Your task to perform on an android device: Open Youtube and go to the subscriptions tab Image 0: 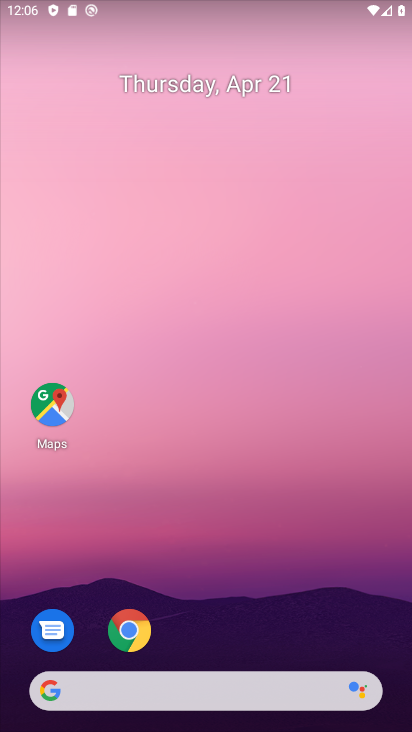
Step 0: drag from (336, 476) to (390, 170)
Your task to perform on an android device: Open Youtube and go to the subscriptions tab Image 1: 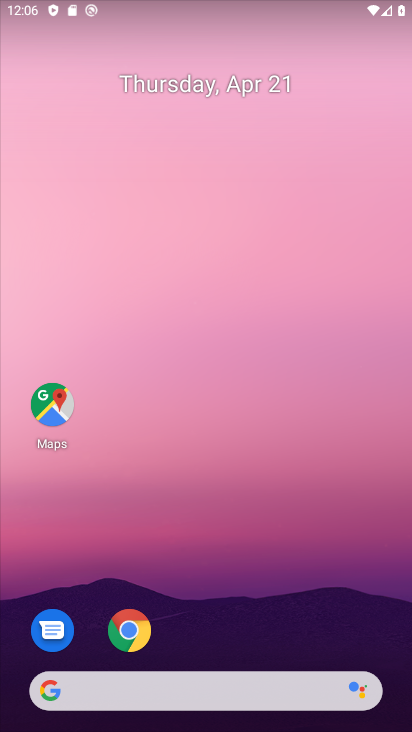
Step 1: drag from (312, 486) to (325, 170)
Your task to perform on an android device: Open Youtube and go to the subscriptions tab Image 2: 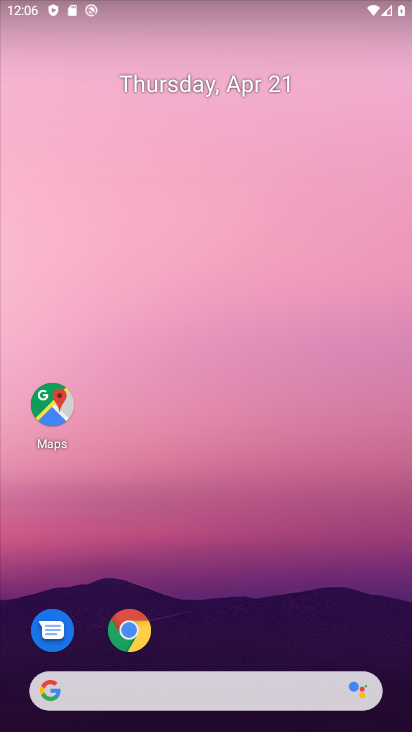
Step 2: drag from (254, 576) to (324, 110)
Your task to perform on an android device: Open Youtube and go to the subscriptions tab Image 3: 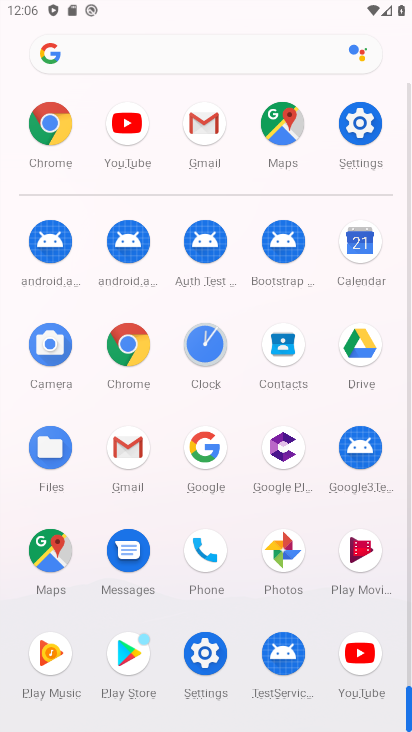
Step 3: click (360, 651)
Your task to perform on an android device: Open Youtube and go to the subscriptions tab Image 4: 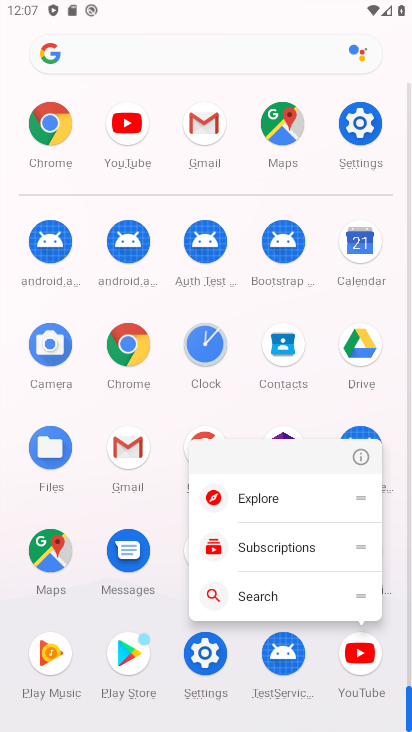
Step 4: click (356, 636)
Your task to perform on an android device: Open Youtube and go to the subscriptions tab Image 5: 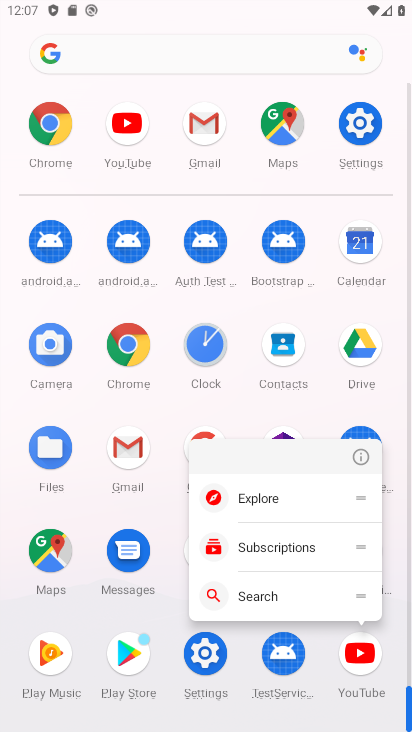
Step 5: click (372, 661)
Your task to perform on an android device: Open Youtube and go to the subscriptions tab Image 6: 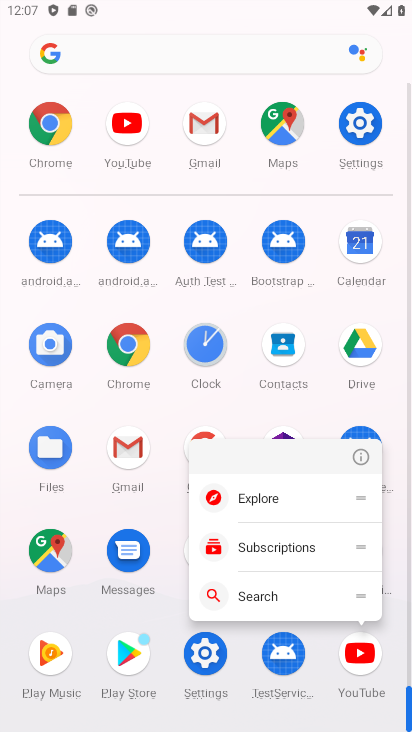
Step 6: click (372, 661)
Your task to perform on an android device: Open Youtube and go to the subscriptions tab Image 7: 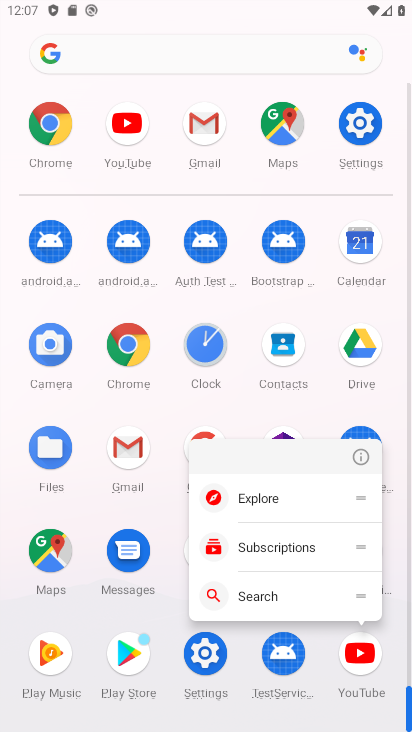
Step 7: click (372, 661)
Your task to perform on an android device: Open Youtube and go to the subscriptions tab Image 8: 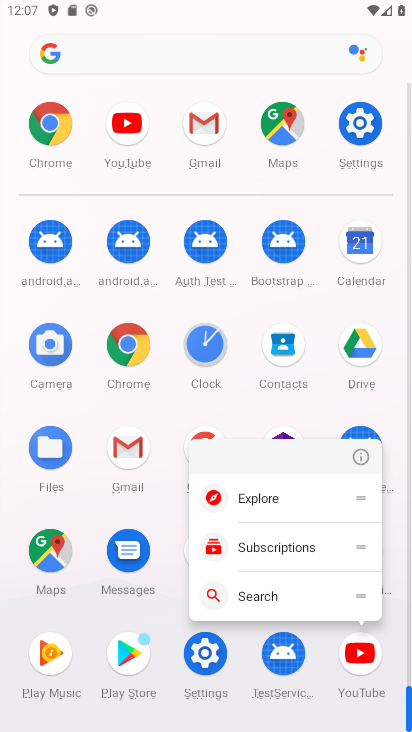
Step 8: click (372, 661)
Your task to perform on an android device: Open Youtube and go to the subscriptions tab Image 9: 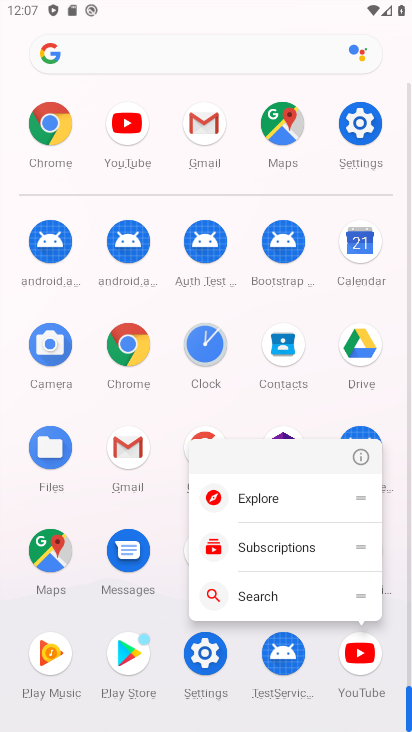
Step 9: click (372, 660)
Your task to perform on an android device: Open Youtube and go to the subscriptions tab Image 10: 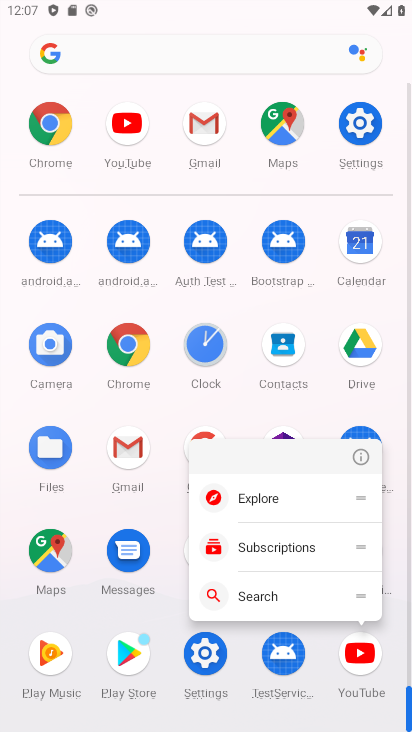
Step 10: click (366, 656)
Your task to perform on an android device: Open Youtube and go to the subscriptions tab Image 11: 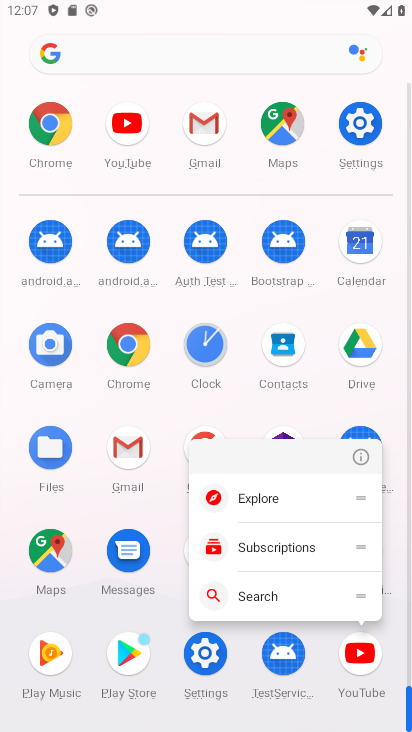
Step 11: click (366, 656)
Your task to perform on an android device: Open Youtube and go to the subscriptions tab Image 12: 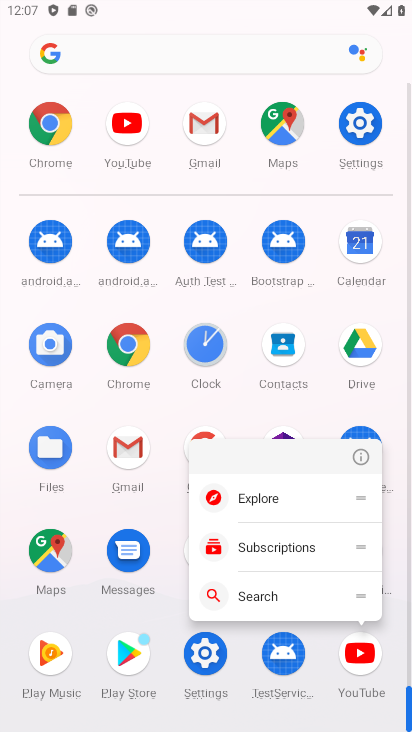
Step 12: click (366, 655)
Your task to perform on an android device: Open Youtube and go to the subscriptions tab Image 13: 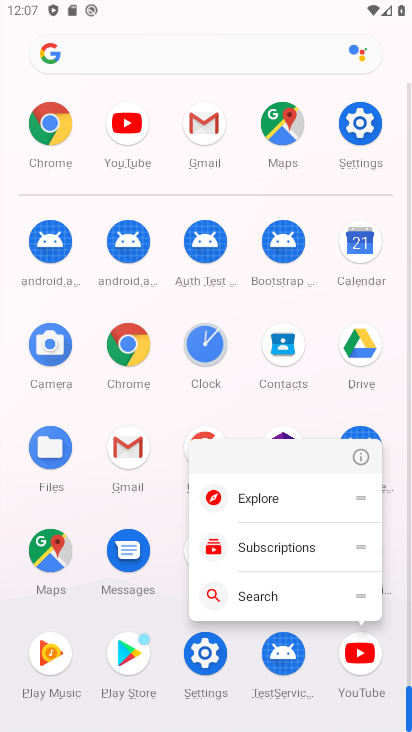
Step 13: click (367, 655)
Your task to perform on an android device: Open Youtube and go to the subscriptions tab Image 14: 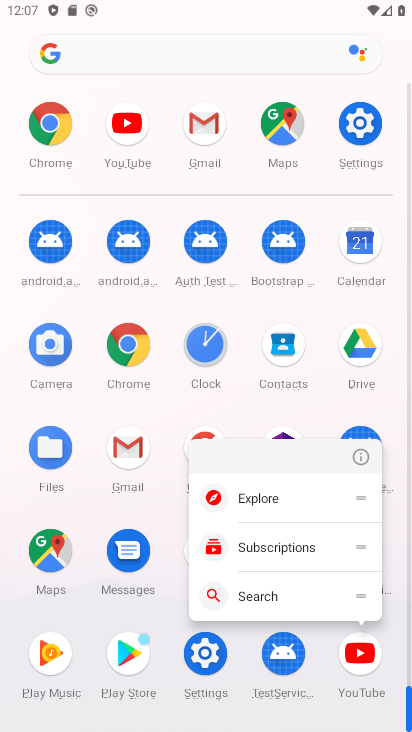
Step 14: click (367, 656)
Your task to perform on an android device: Open Youtube and go to the subscriptions tab Image 15: 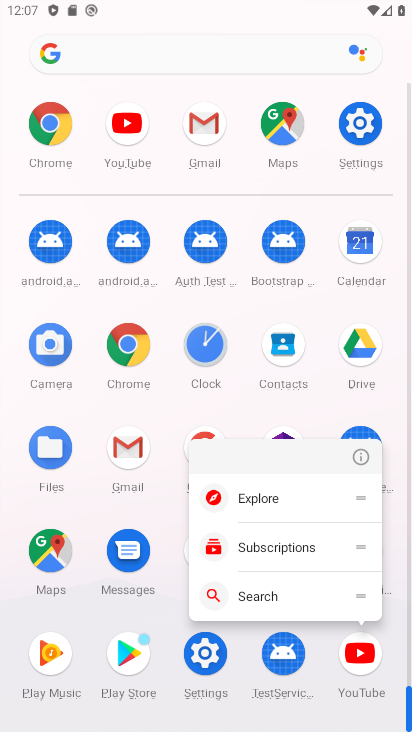
Step 15: click (367, 656)
Your task to perform on an android device: Open Youtube and go to the subscriptions tab Image 16: 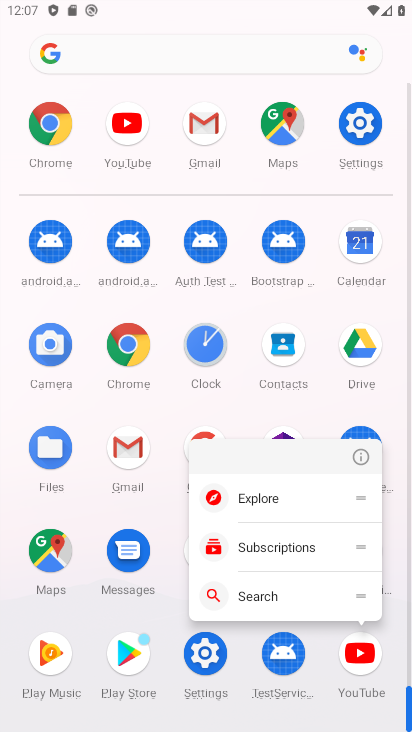
Step 16: drag from (399, 618) to (350, 672)
Your task to perform on an android device: Open Youtube and go to the subscriptions tab Image 17: 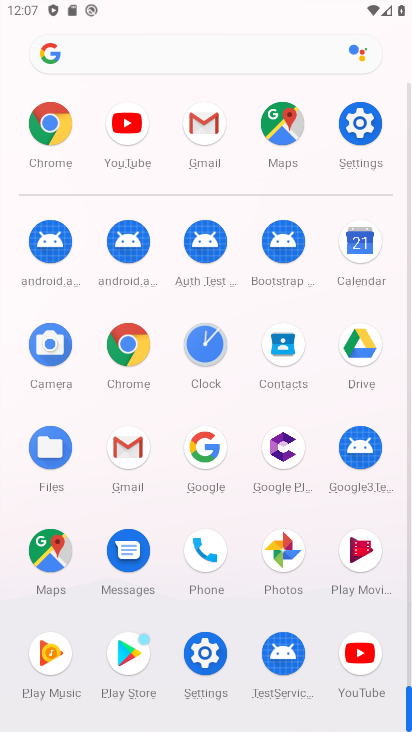
Step 17: drag from (399, 618) to (358, 664)
Your task to perform on an android device: Open Youtube and go to the subscriptions tab Image 18: 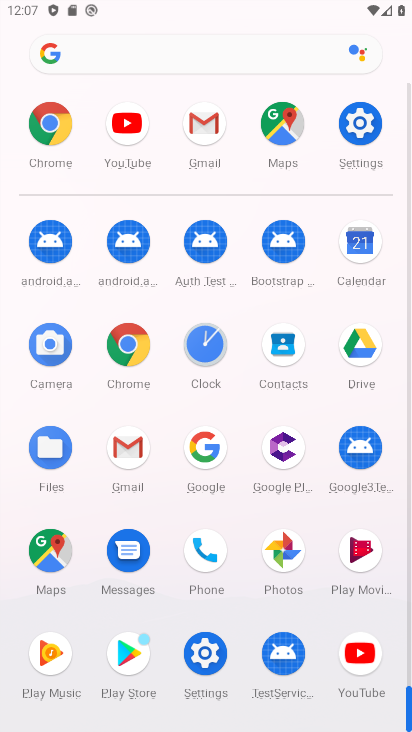
Step 18: click (373, 663)
Your task to perform on an android device: Open Youtube and go to the subscriptions tab Image 19: 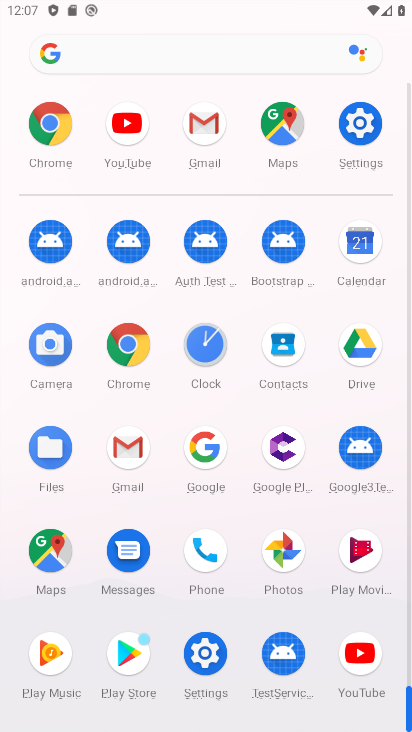
Step 19: click (369, 656)
Your task to perform on an android device: Open Youtube and go to the subscriptions tab Image 20: 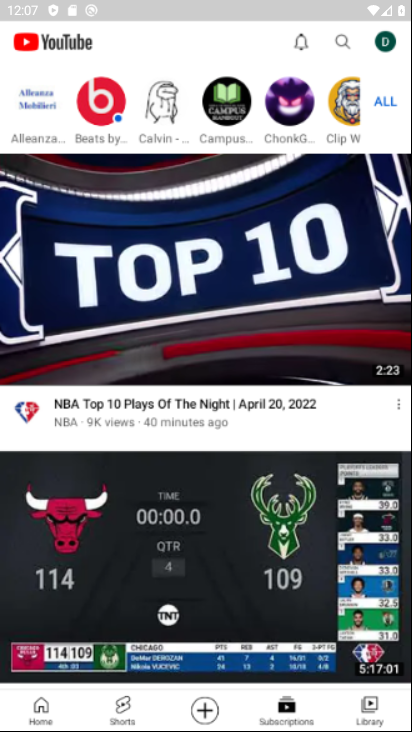
Step 20: click (364, 656)
Your task to perform on an android device: Open Youtube and go to the subscriptions tab Image 21: 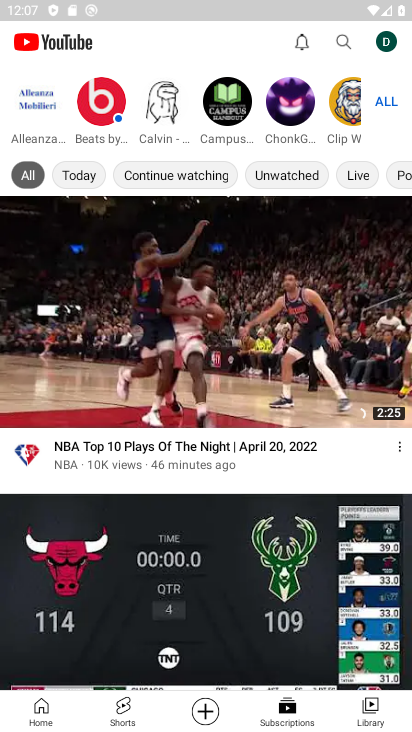
Step 21: click (277, 717)
Your task to perform on an android device: Open Youtube and go to the subscriptions tab Image 22: 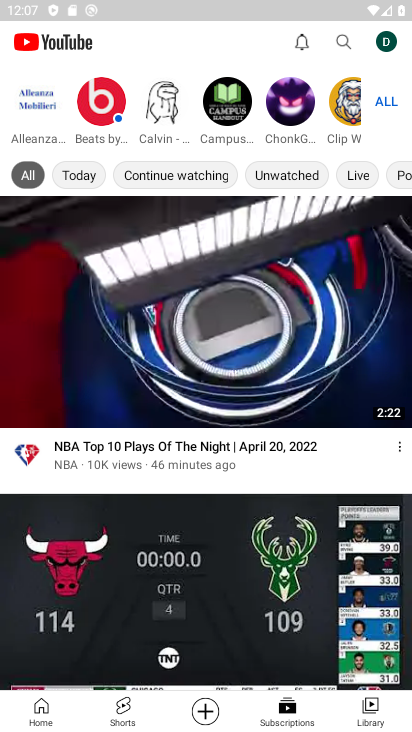
Step 22: task complete